Your task to perform on an android device: toggle translation in the chrome app Image 0: 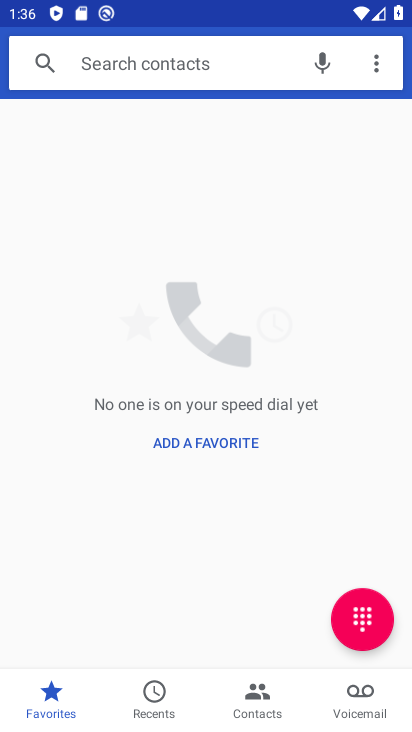
Step 0: press home button
Your task to perform on an android device: toggle translation in the chrome app Image 1: 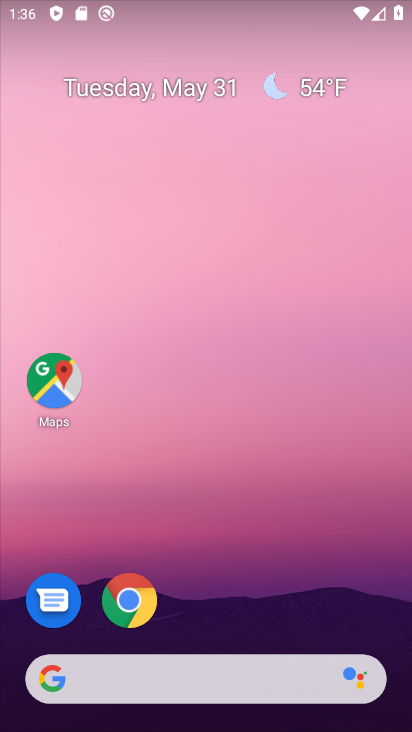
Step 1: click (135, 593)
Your task to perform on an android device: toggle translation in the chrome app Image 2: 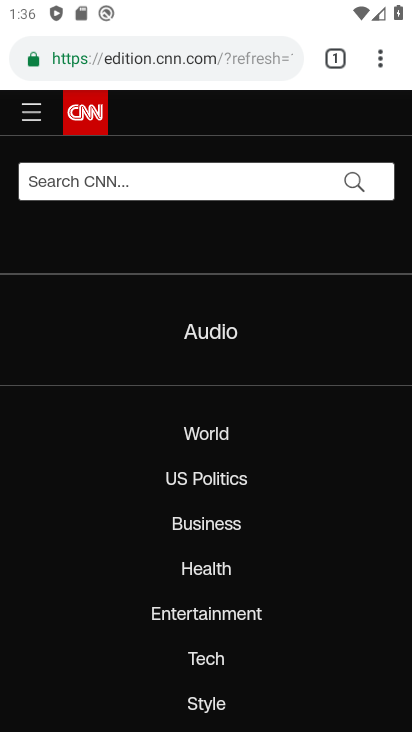
Step 2: click (385, 71)
Your task to perform on an android device: toggle translation in the chrome app Image 3: 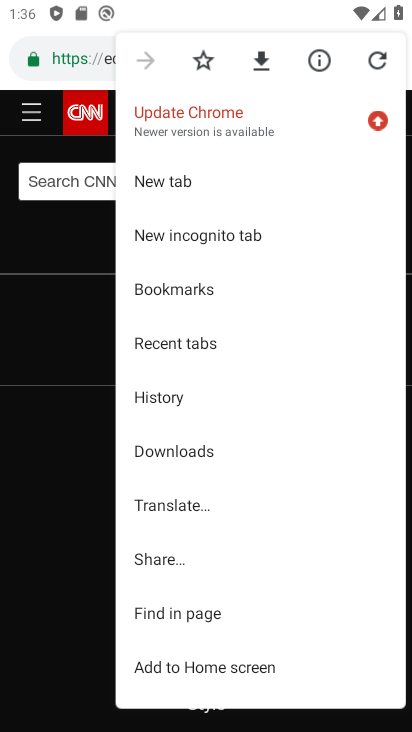
Step 3: drag from (271, 594) to (263, 183)
Your task to perform on an android device: toggle translation in the chrome app Image 4: 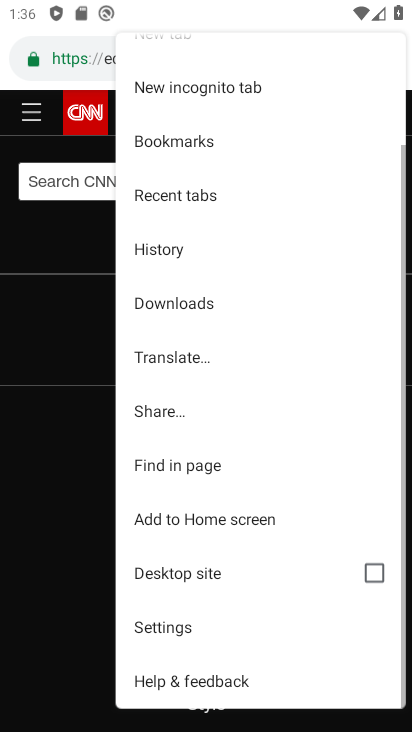
Step 4: click (221, 619)
Your task to perform on an android device: toggle translation in the chrome app Image 5: 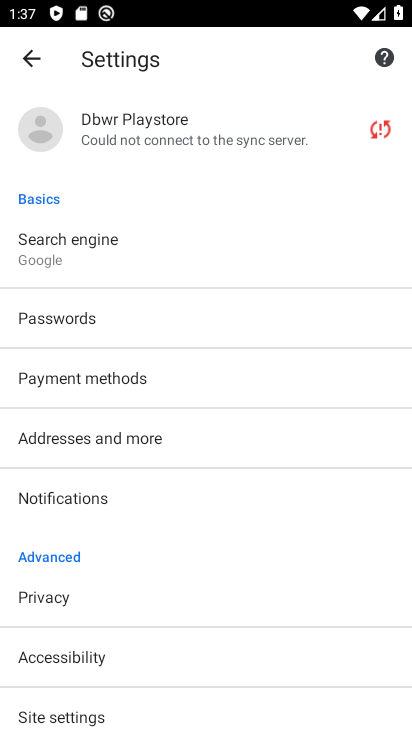
Step 5: drag from (223, 647) to (219, 298)
Your task to perform on an android device: toggle translation in the chrome app Image 6: 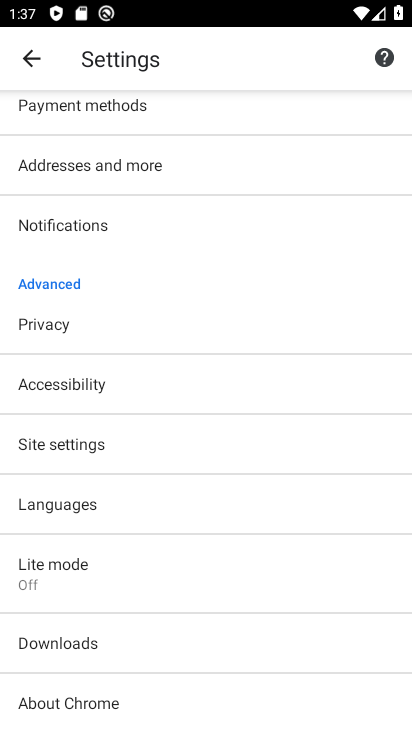
Step 6: click (106, 514)
Your task to perform on an android device: toggle translation in the chrome app Image 7: 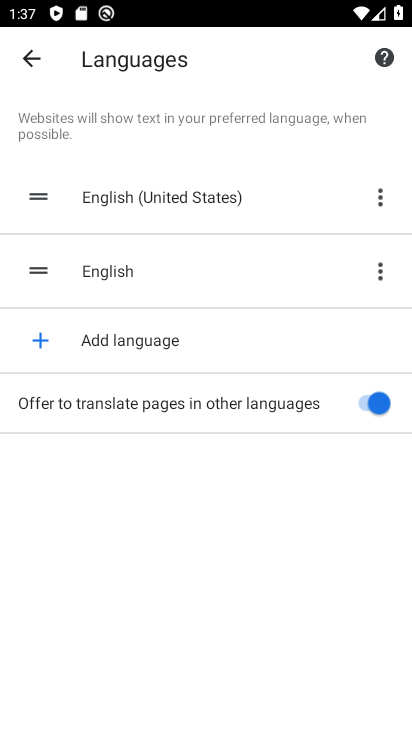
Step 7: click (371, 398)
Your task to perform on an android device: toggle translation in the chrome app Image 8: 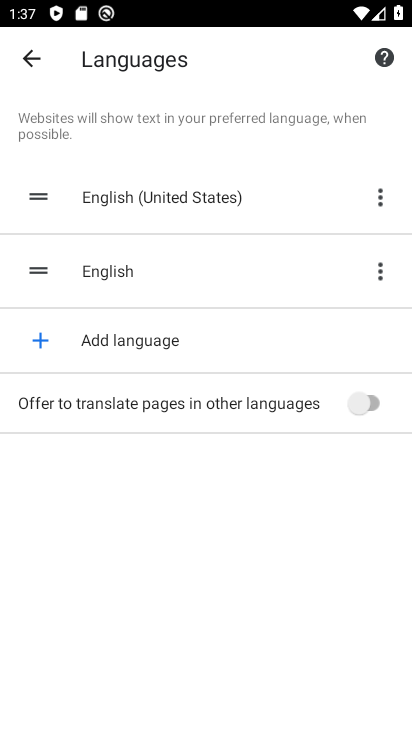
Step 8: task complete